Your task to perform on an android device: Open Google Image 0: 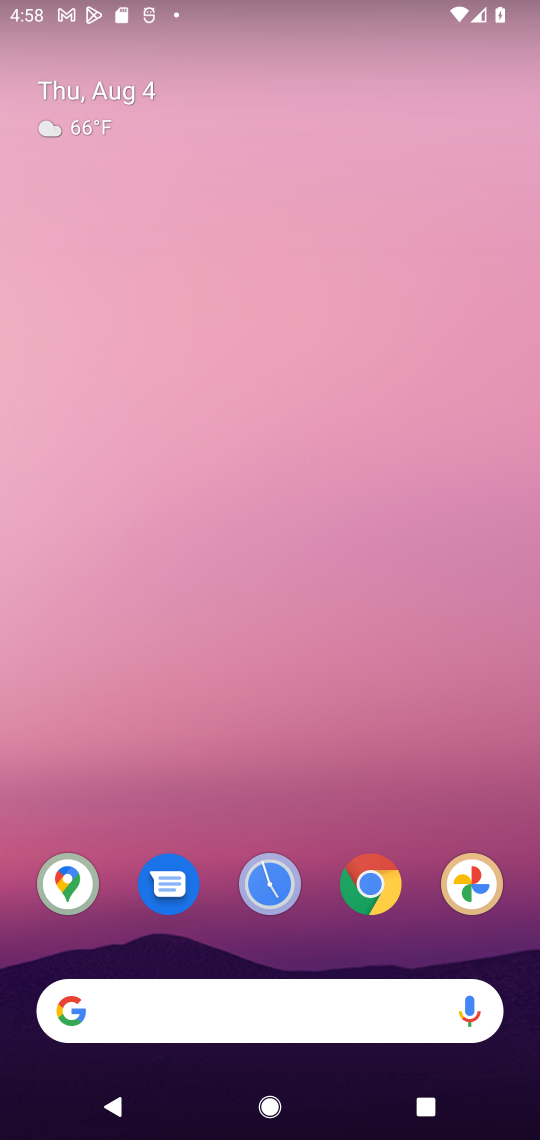
Step 0: click (394, 885)
Your task to perform on an android device: Open Google Image 1: 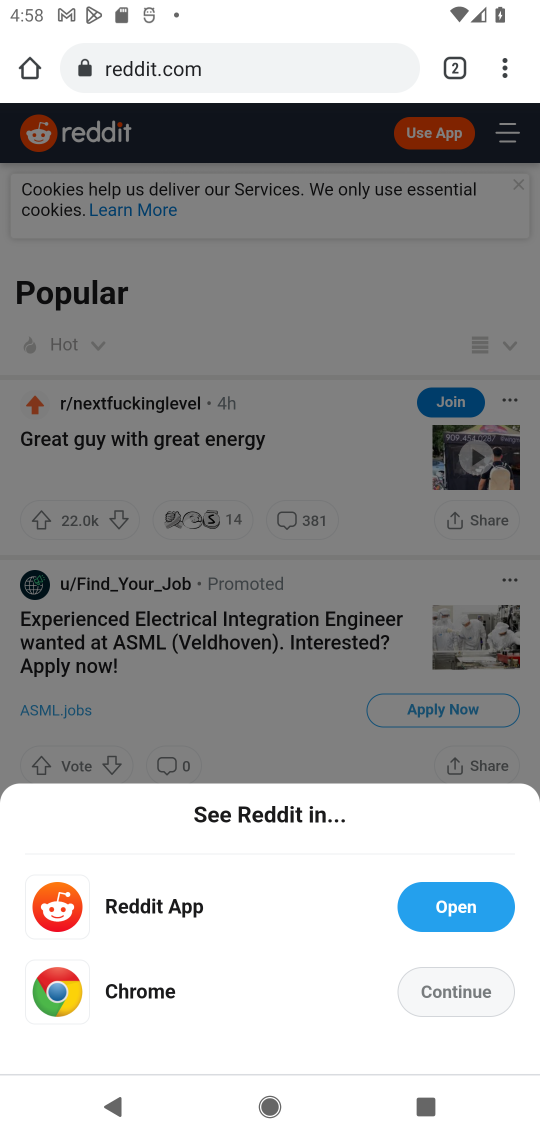
Step 1: click (263, 70)
Your task to perform on an android device: Open Google Image 2: 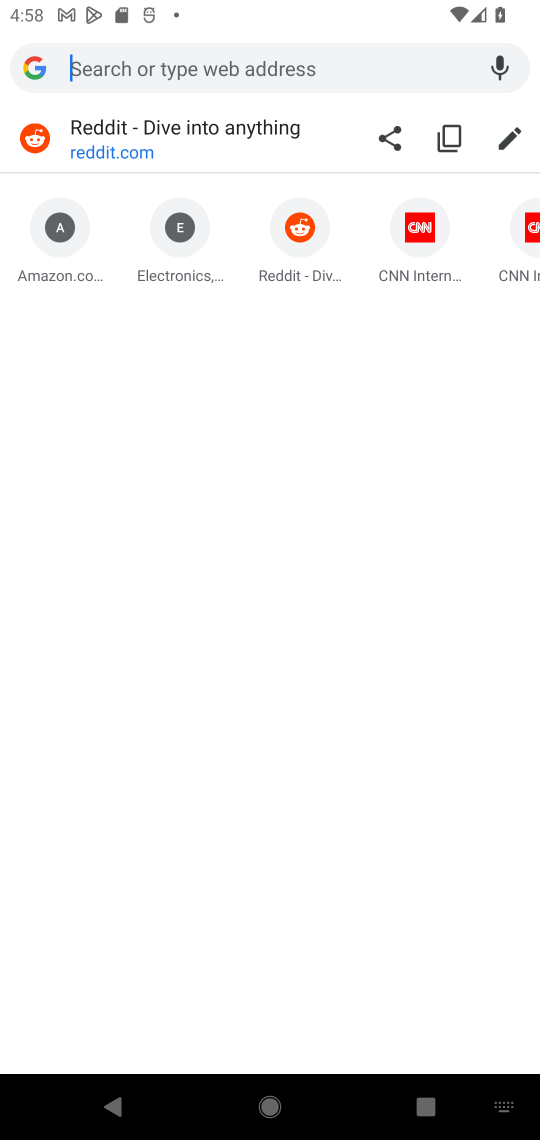
Step 2: type "google.com"
Your task to perform on an android device: Open Google Image 3: 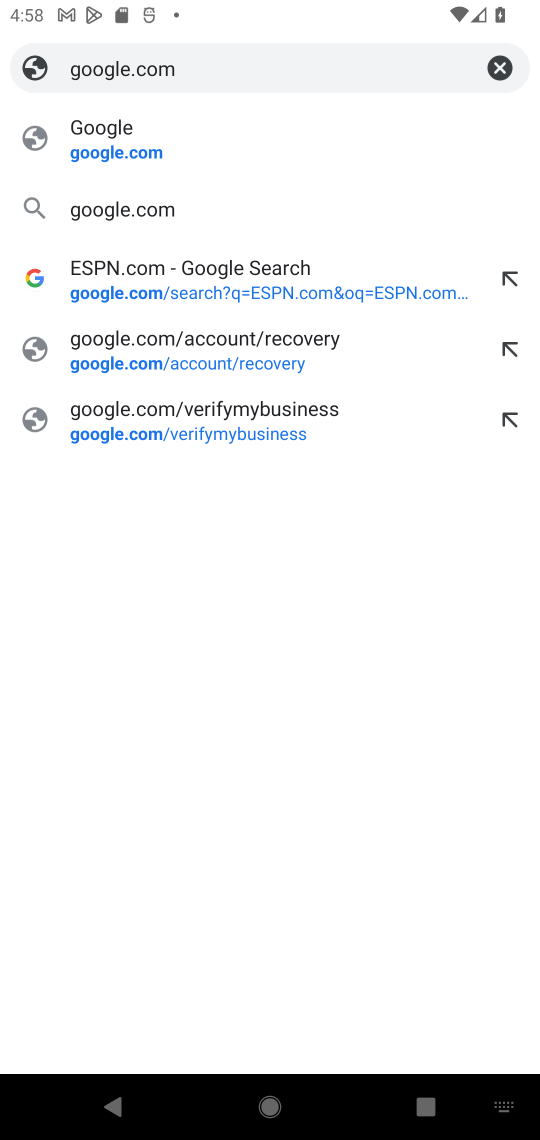
Step 3: click (253, 141)
Your task to perform on an android device: Open Google Image 4: 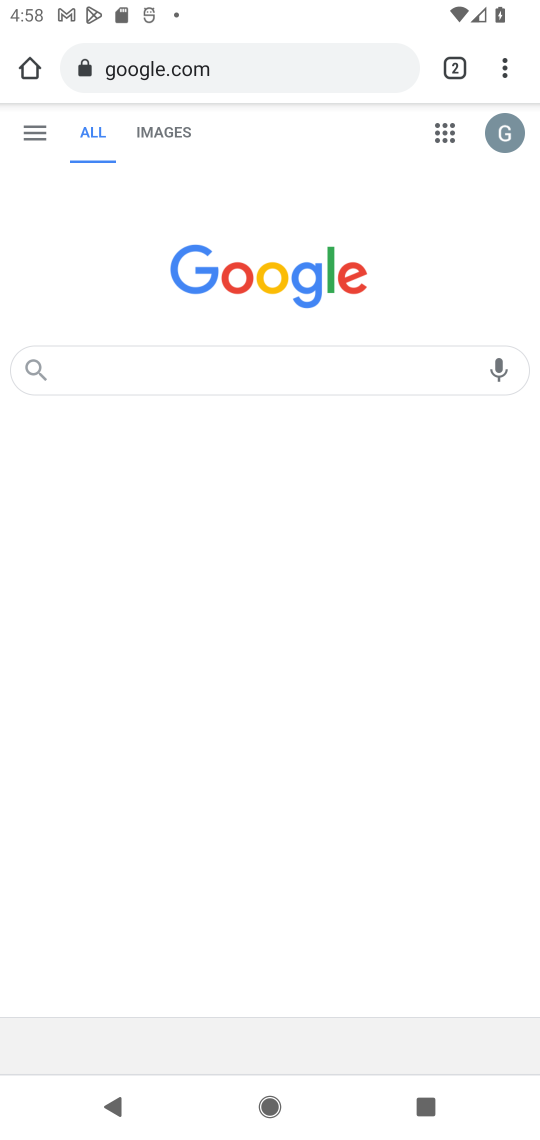
Step 4: task complete